Your task to perform on an android device: Open the web browser Image 0: 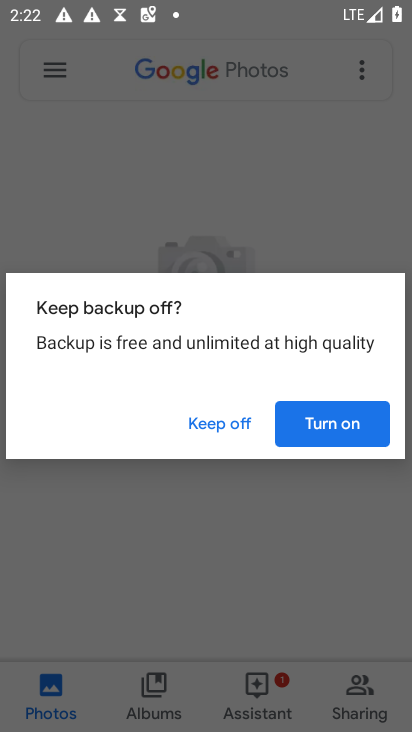
Step 0: press back button
Your task to perform on an android device: Open the web browser Image 1: 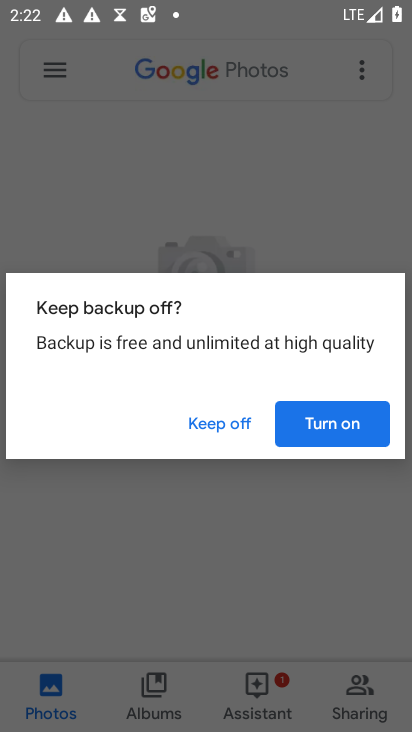
Step 1: press home button
Your task to perform on an android device: Open the web browser Image 2: 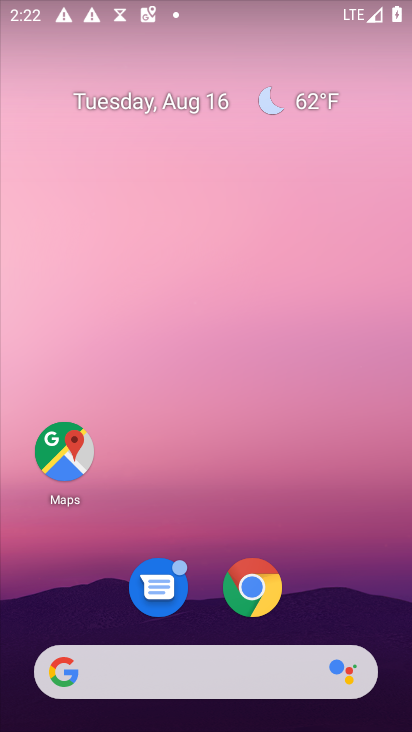
Step 2: click (253, 596)
Your task to perform on an android device: Open the web browser Image 3: 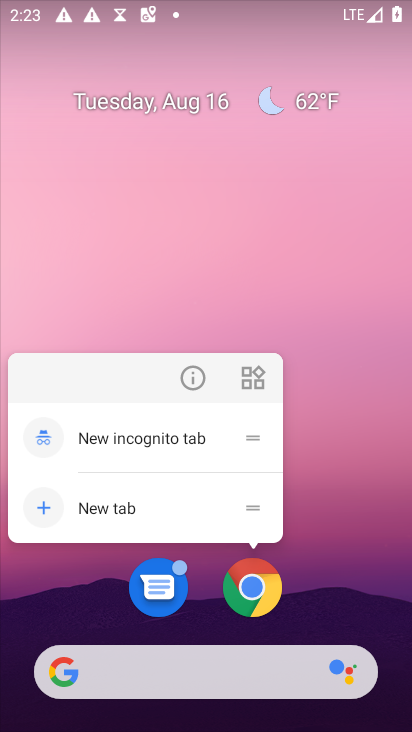
Step 3: click (253, 596)
Your task to perform on an android device: Open the web browser Image 4: 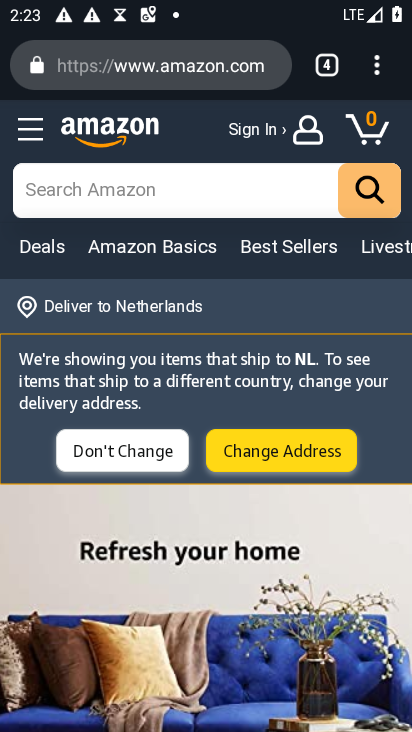
Step 4: task complete